Your task to perform on an android device: turn on bluetooth scan Image 0: 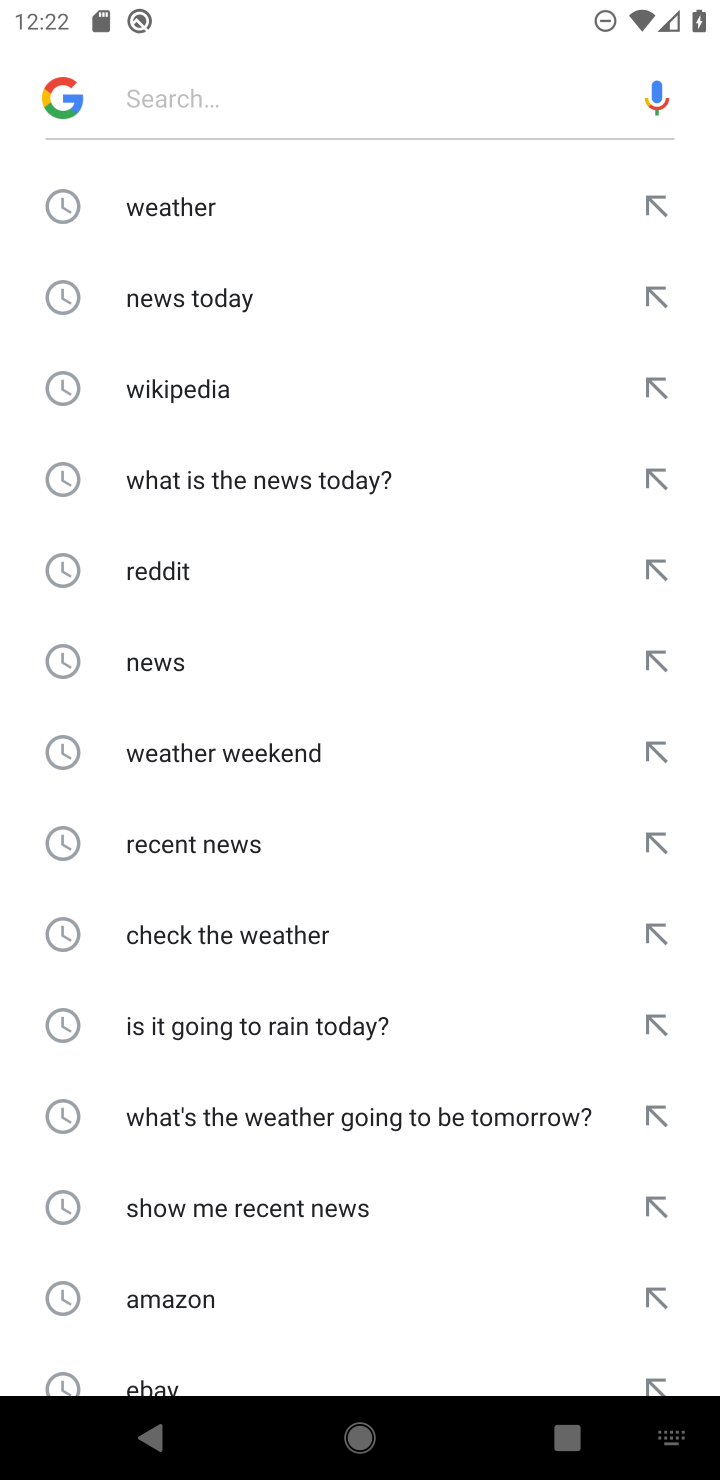
Step 0: press home button
Your task to perform on an android device: turn on bluetooth scan Image 1: 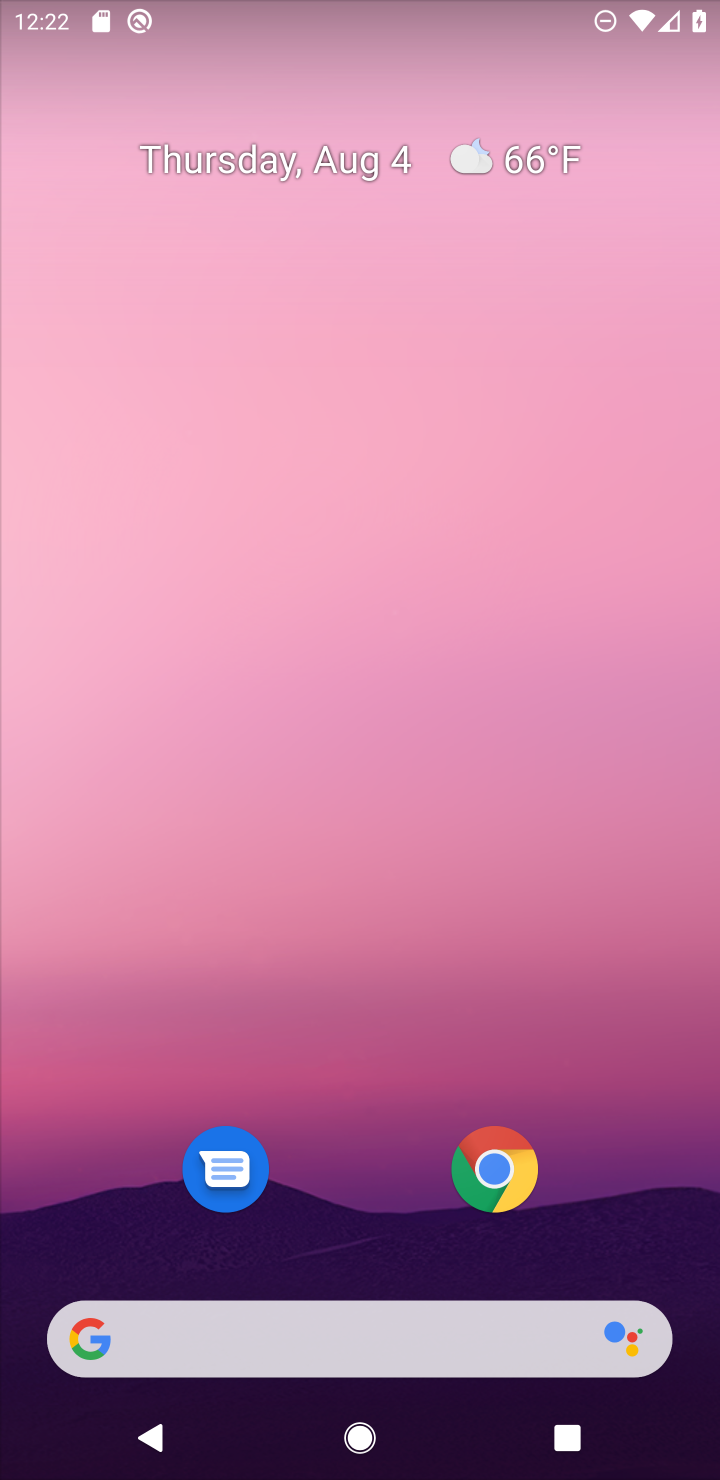
Step 1: drag from (373, 1146) to (409, 28)
Your task to perform on an android device: turn on bluetooth scan Image 2: 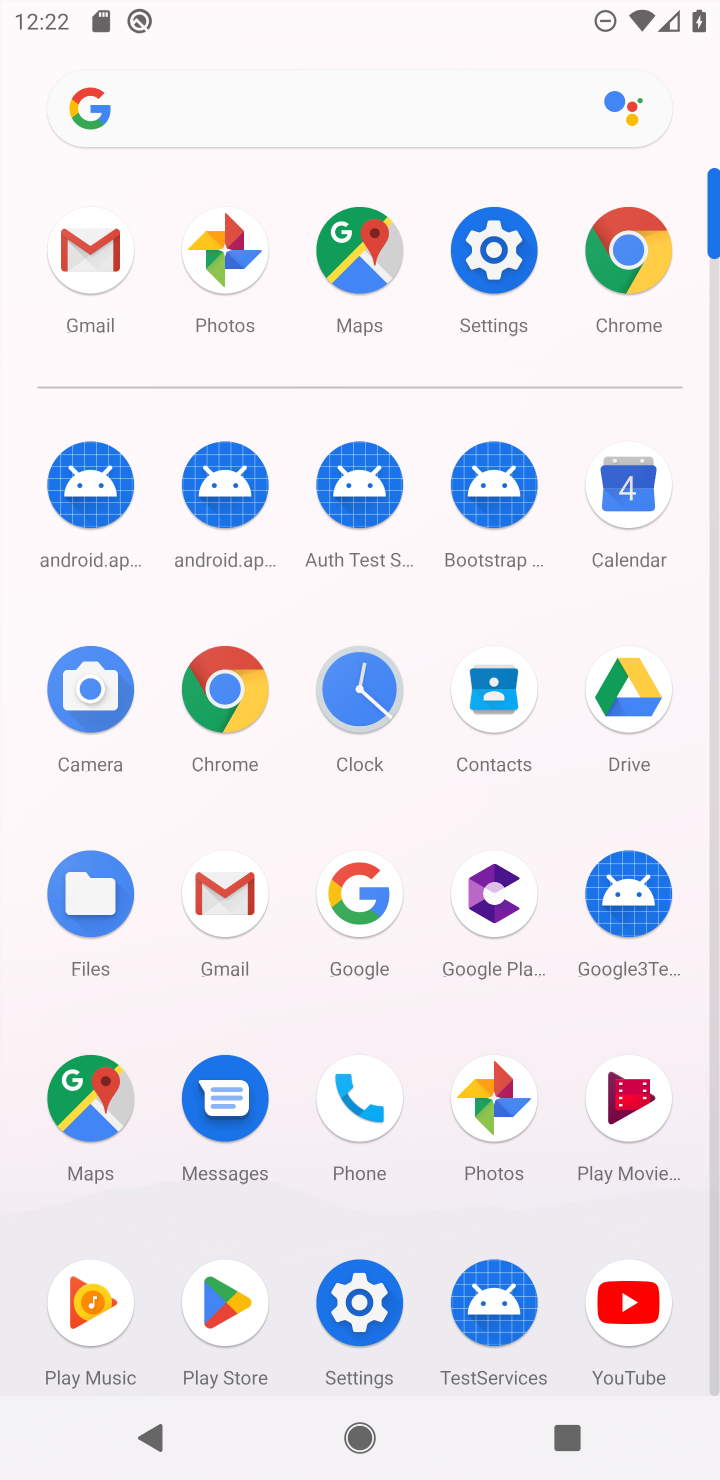
Step 2: click (497, 273)
Your task to perform on an android device: turn on bluetooth scan Image 3: 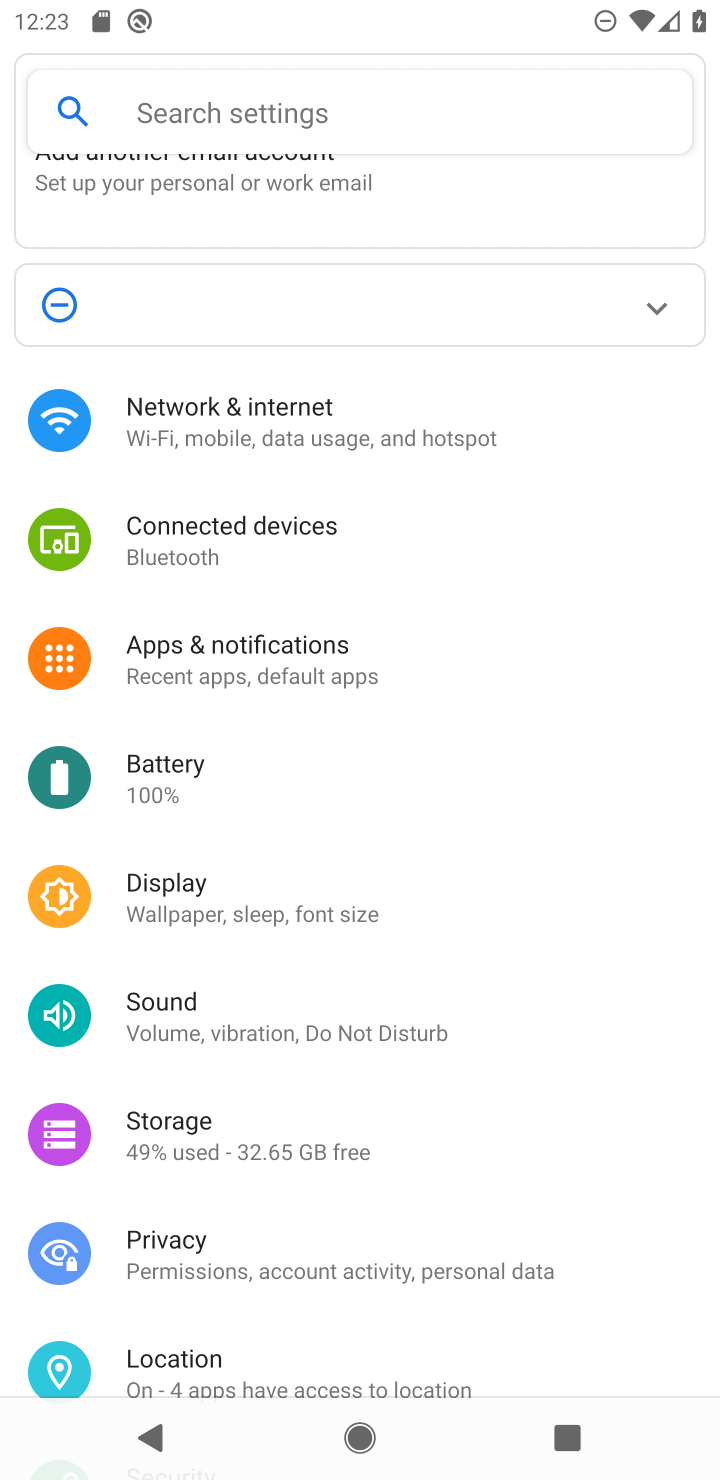
Step 3: drag from (418, 1142) to (422, 566)
Your task to perform on an android device: turn on bluetooth scan Image 4: 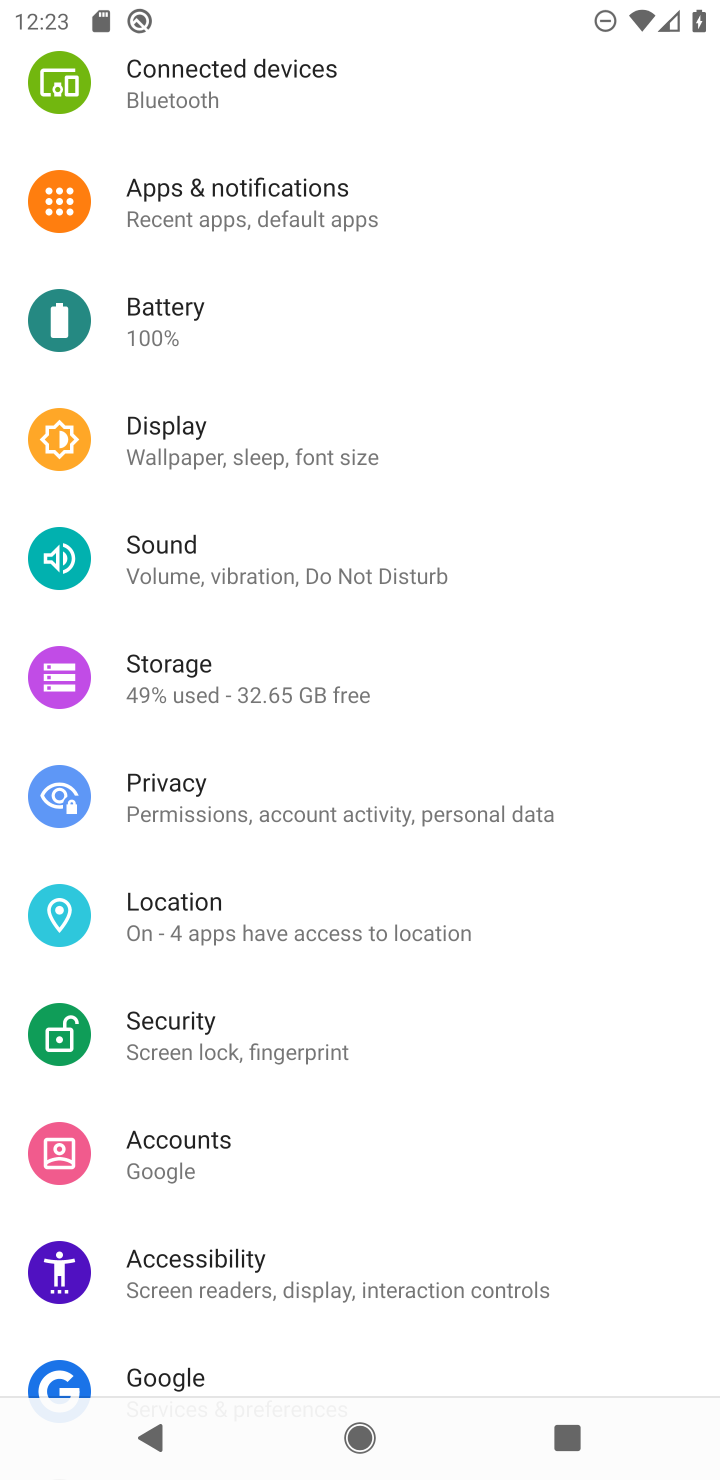
Step 4: click (152, 917)
Your task to perform on an android device: turn on bluetooth scan Image 5: 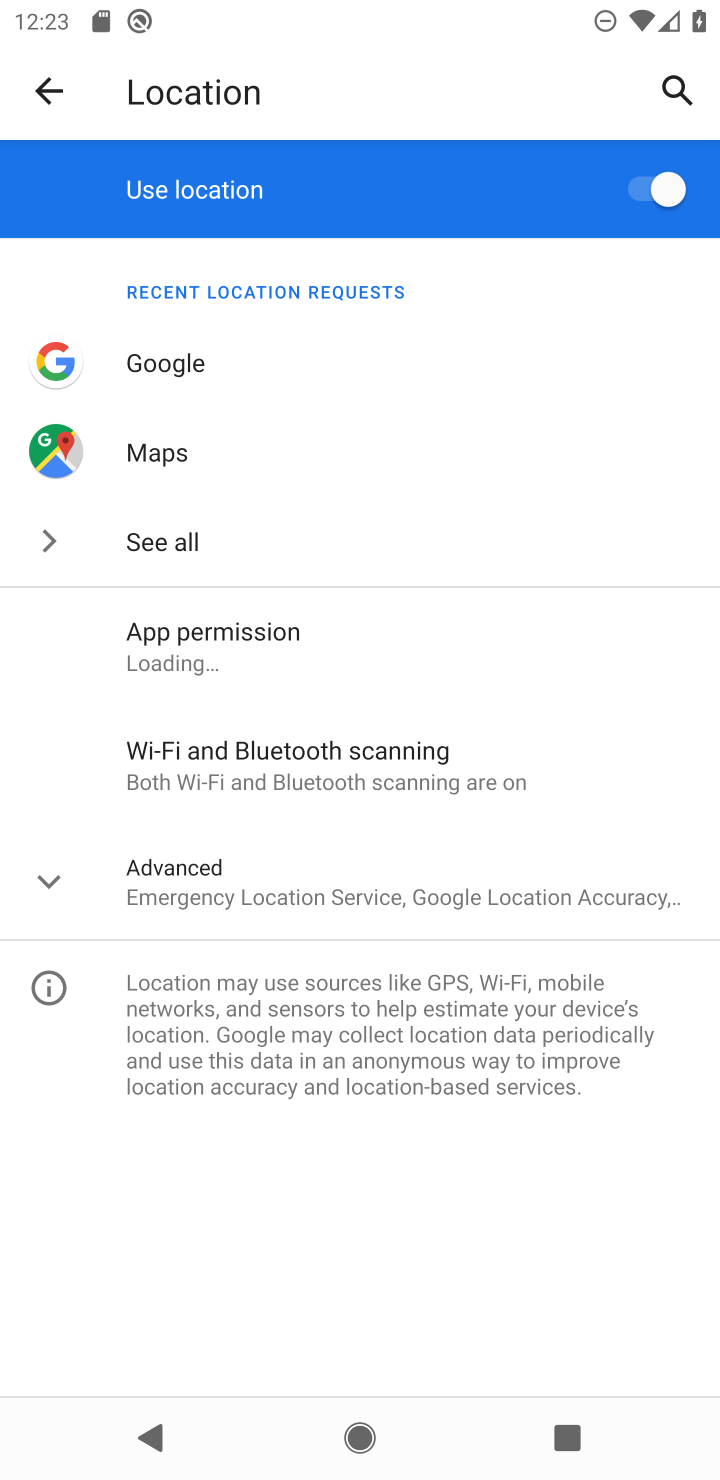
Step 5: click (241, 769)
Your task to perform on an android device: turn on bluetooth scan Image 6: 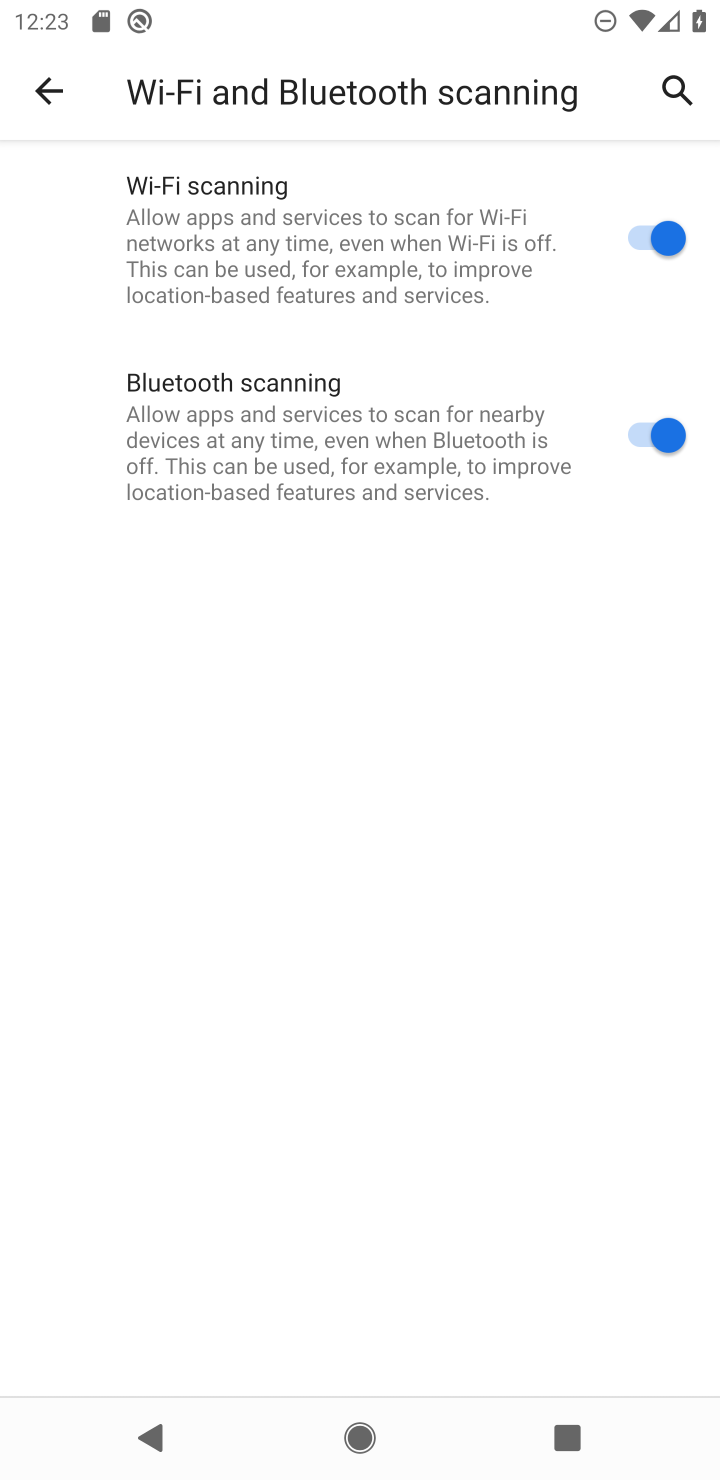
Step 6: task complete